Your task to perform on an android device: install app "Mercado Libre" Image 0: 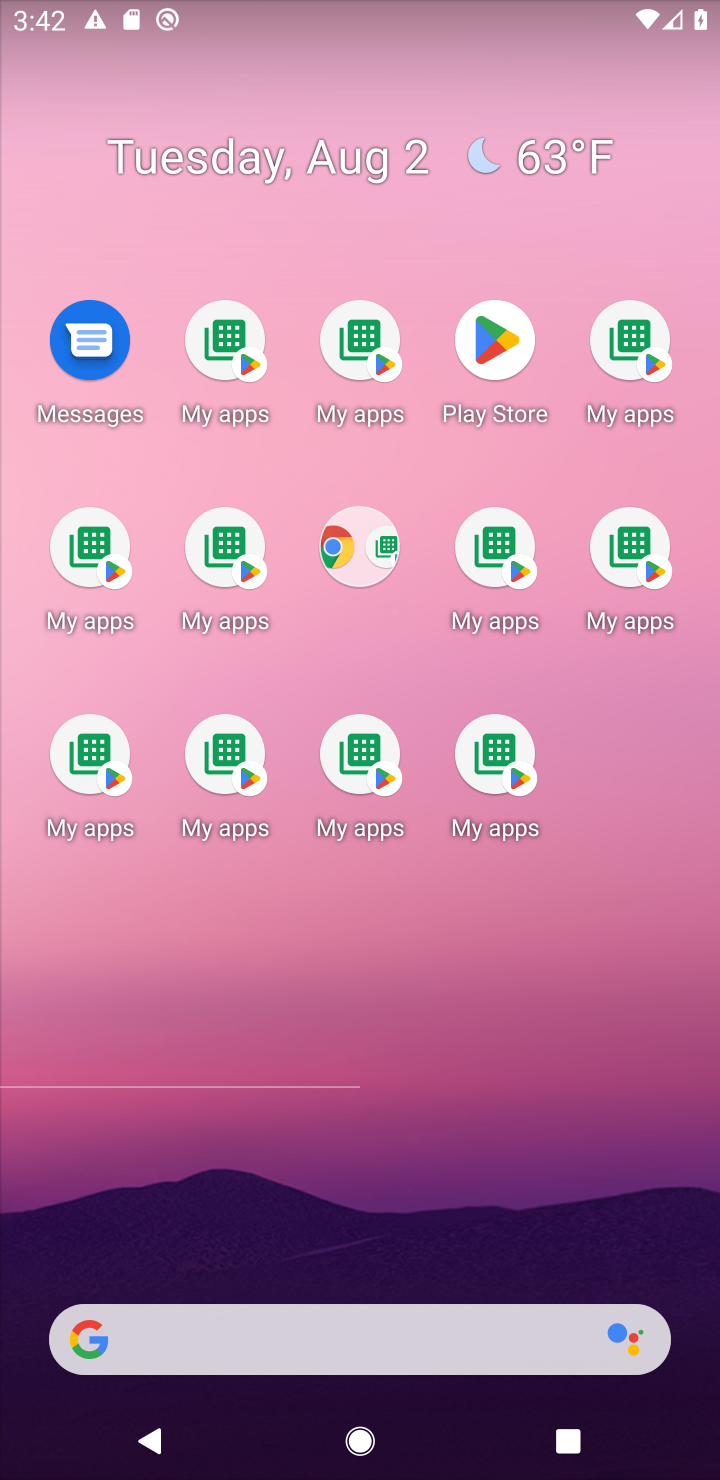
Step 0: press back button
Your task to perform on an android device: install app "Mercado Libre" Image 1: 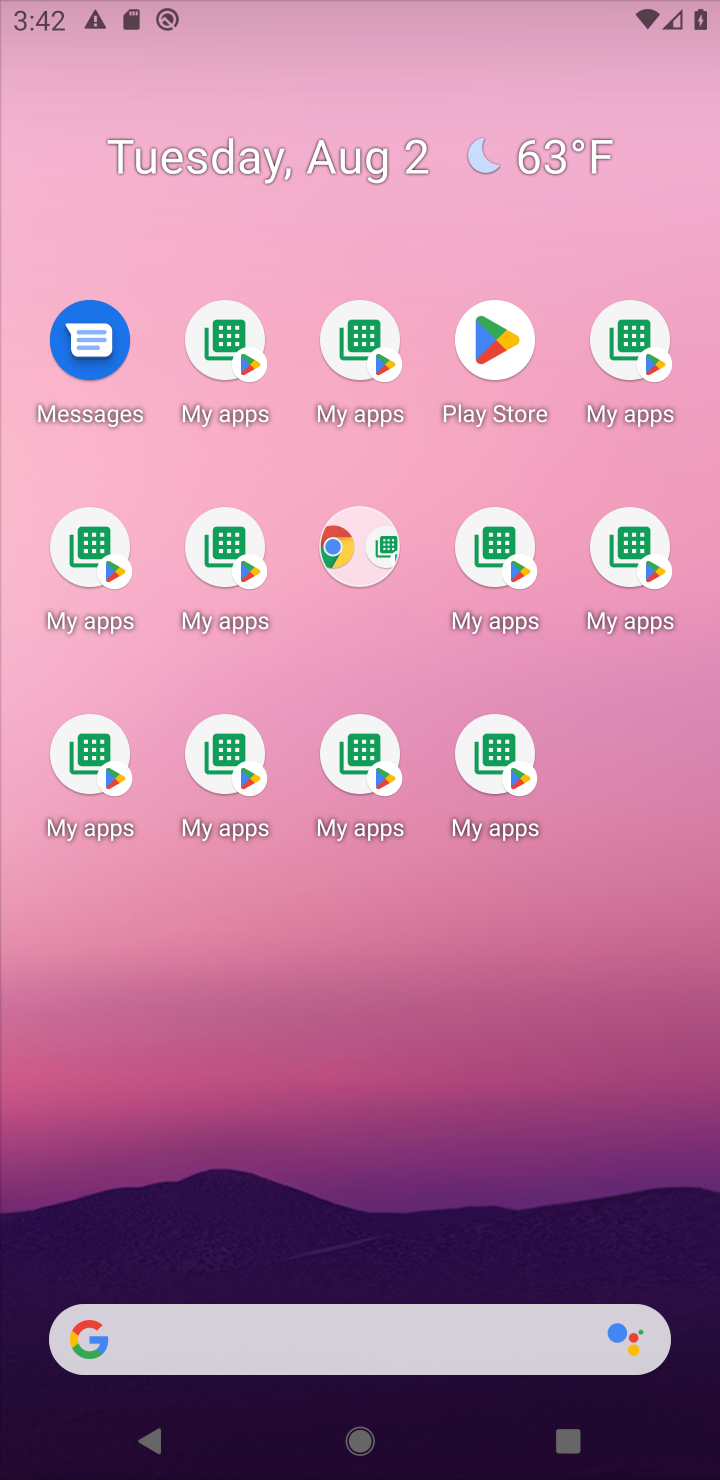
Step 1: click (244, 148)
Your task to perform on an android device: install app "Mercado Libre" Image 2: 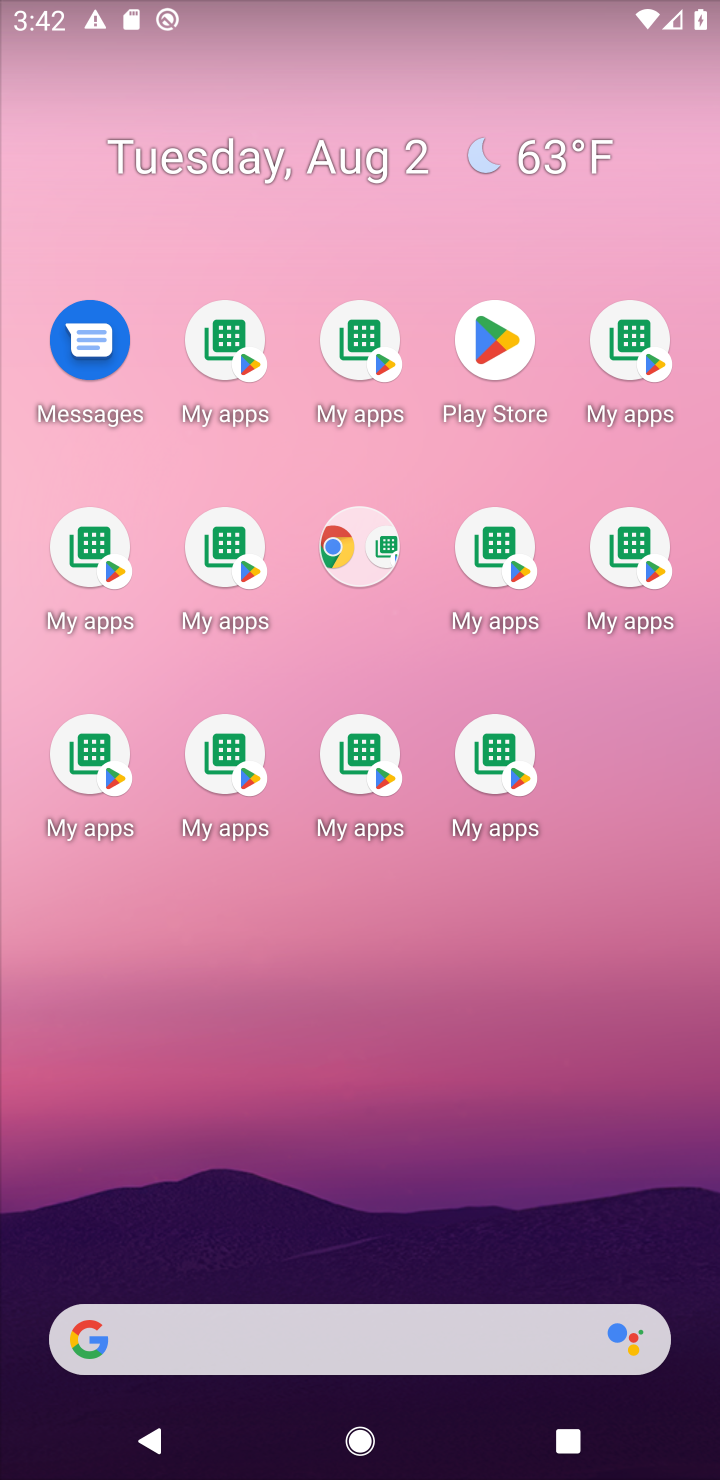
Step 2: click (303, 308)
Your task to perform on an android device: install app "Mercado Libre" Image 3: 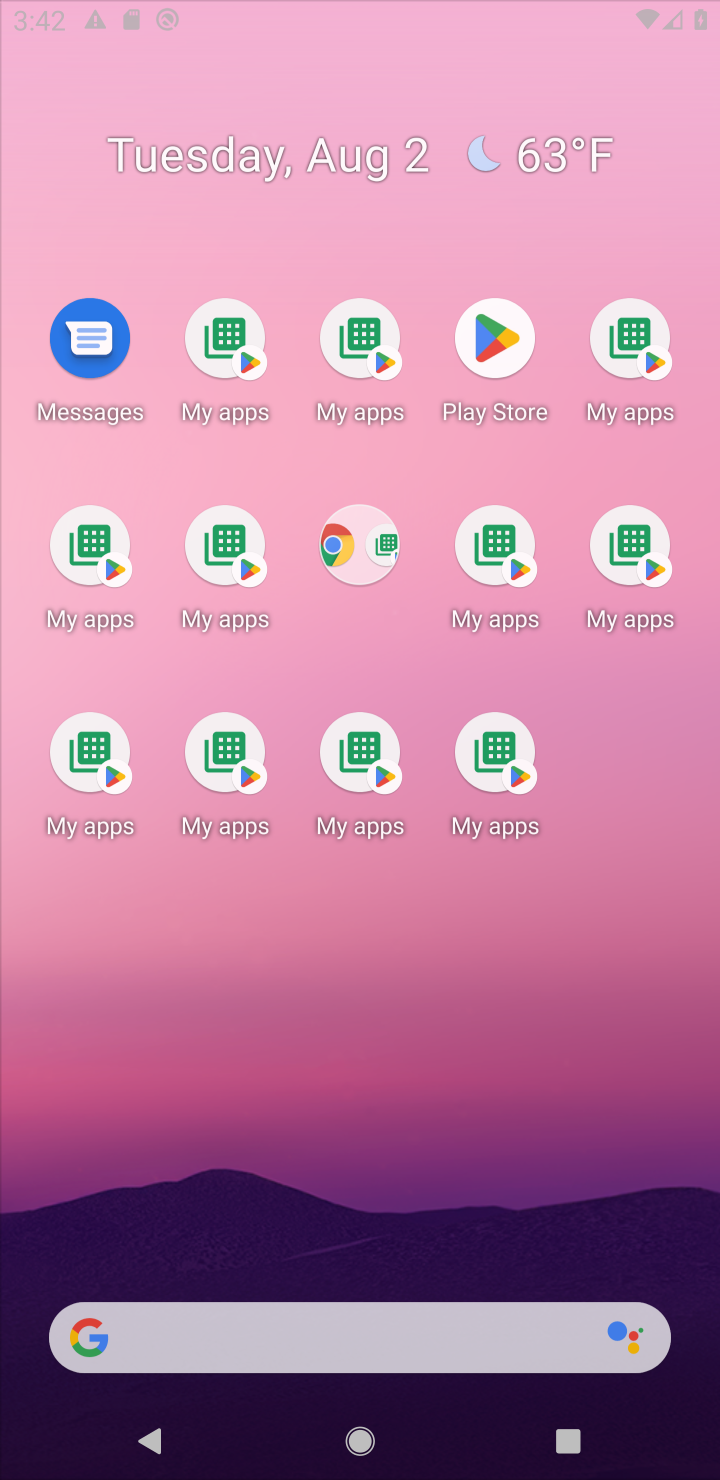
Step 3: click (172, 493)
Your task to perform on an android device: install app "Mercado Libre" Image 4: 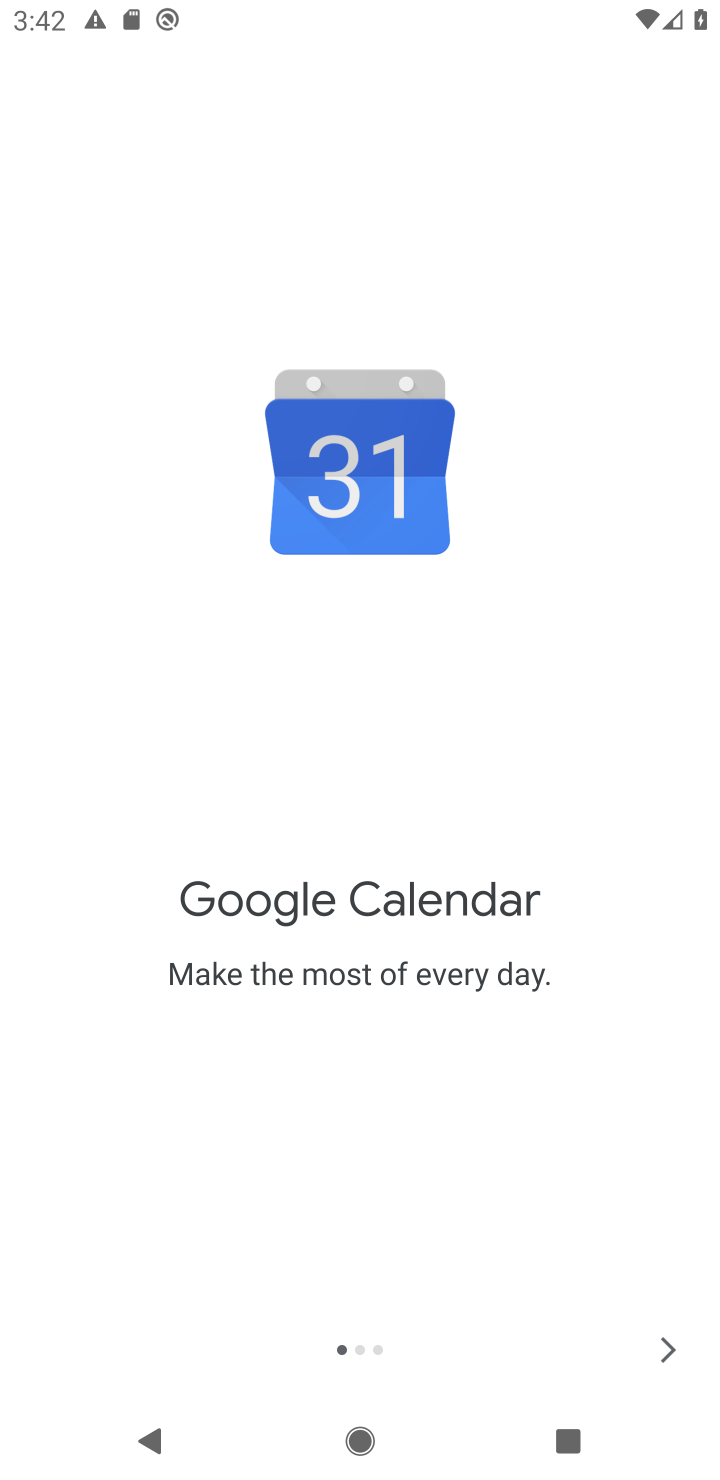
Step 4: drag from (333, 1121) to (329, 283)
Your task to perform on an android device: install app "Mercado Libre" Image 5: 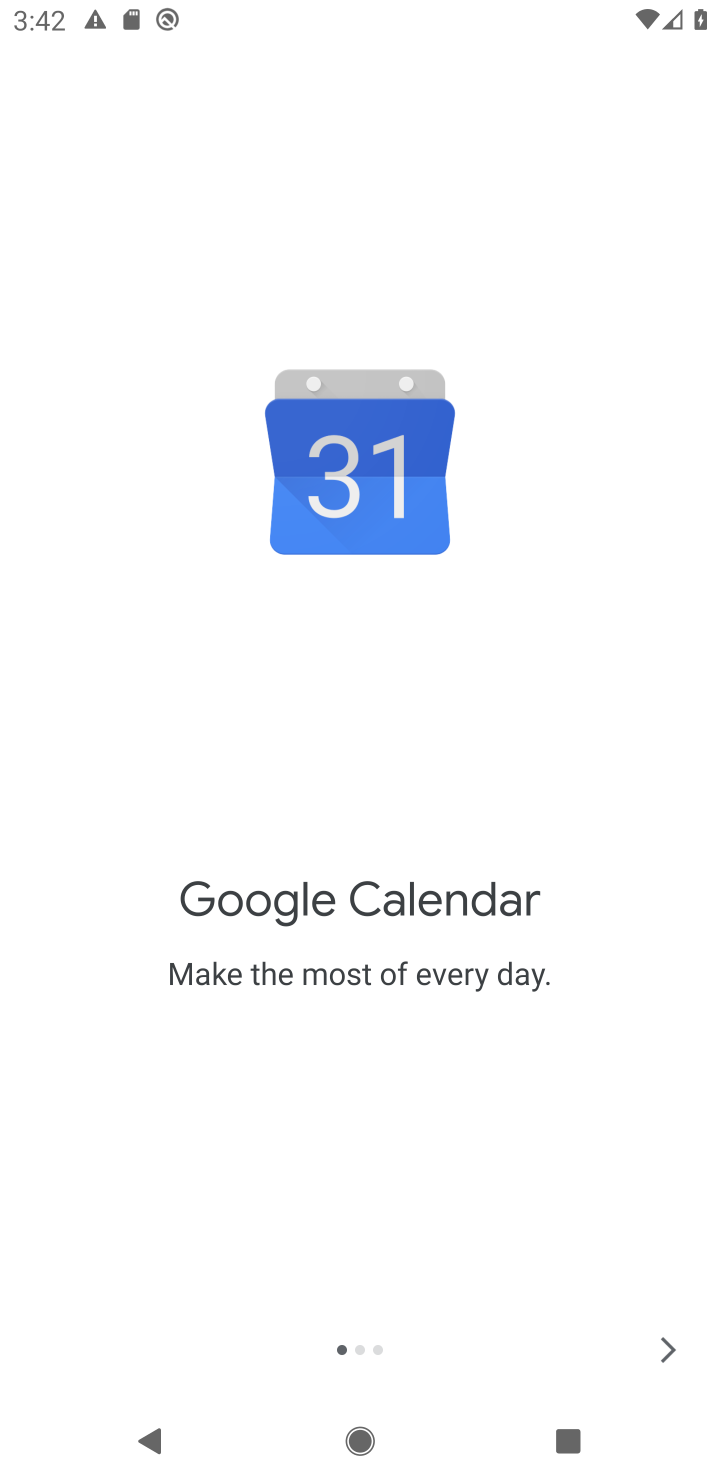
Step 5: press back button
Your task to perform on an android device: install app "Mercado Libre" Image 6: 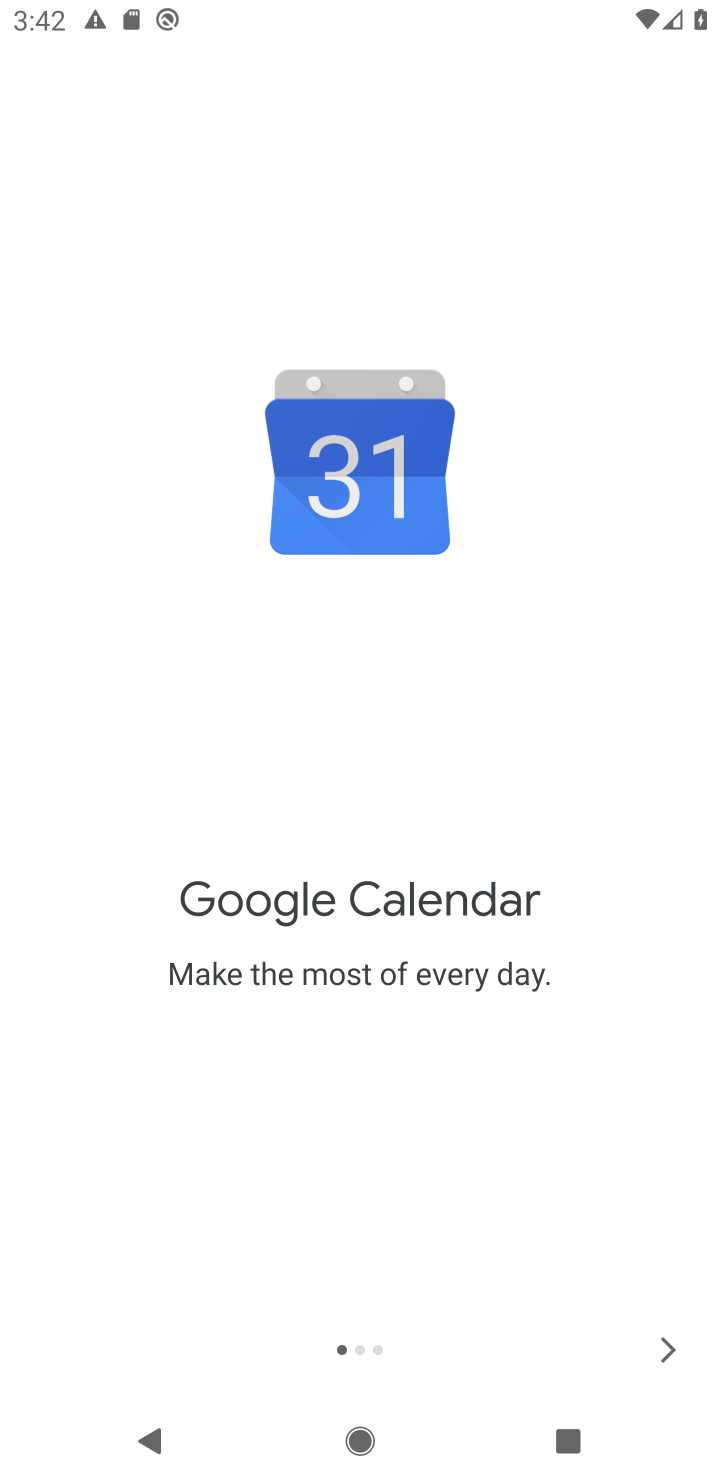
Step 6: press back button
Your task to perform on an android device: install app "Mercado Libre" Image 7: 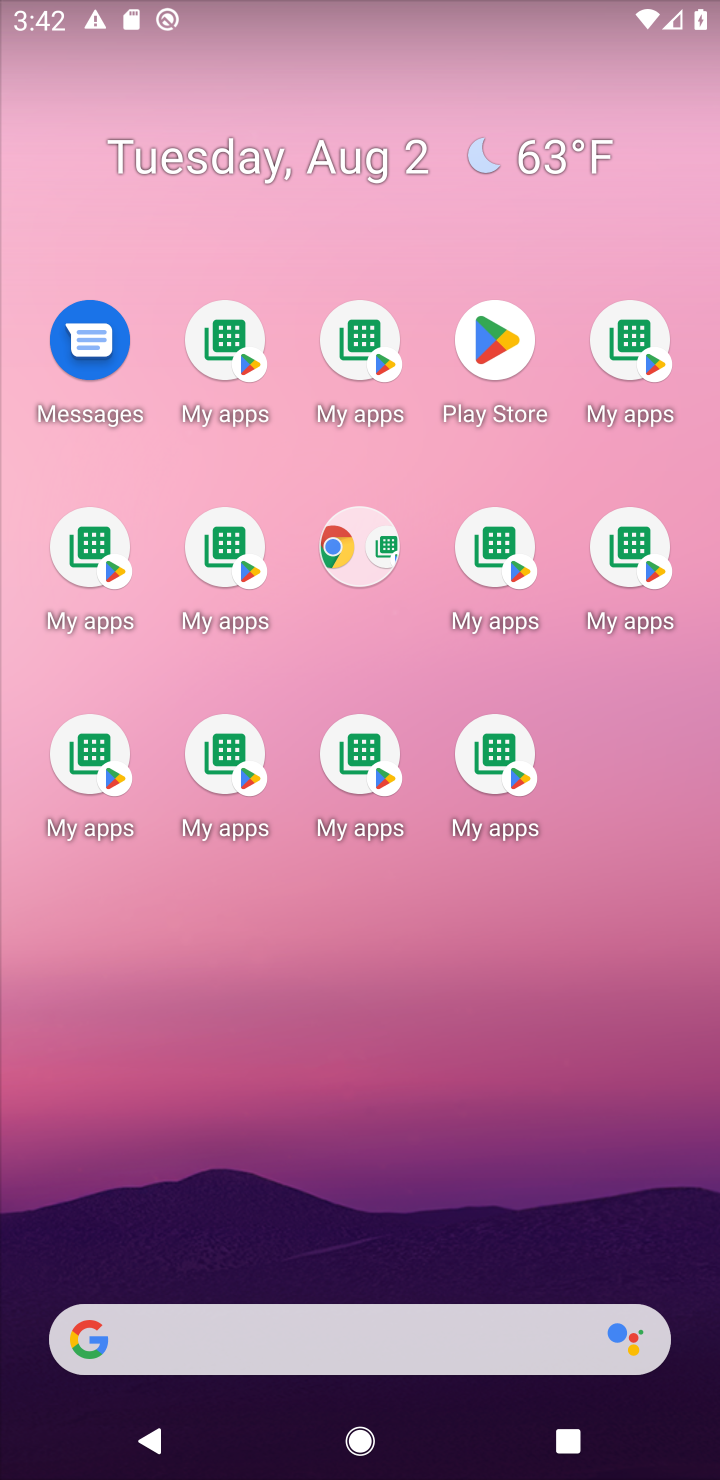
Step 7: drag from (306, 950) to (159, 462)
Your task to perform on an android device: install app "Mercado Libre" Image 8: 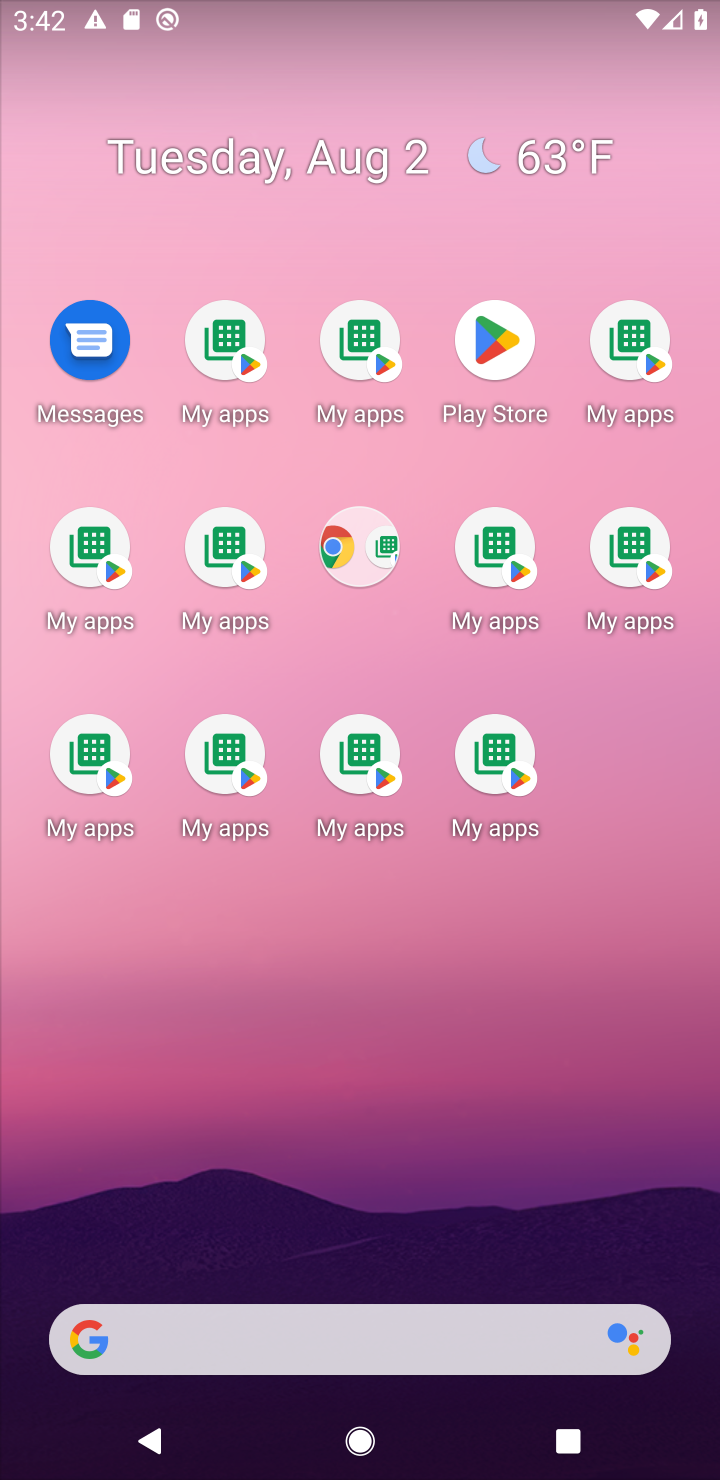
Step 8: drag from (337, 614) to (351, 380)
Your task to perform on an android device: install app "Mercado Libre" Image 9: 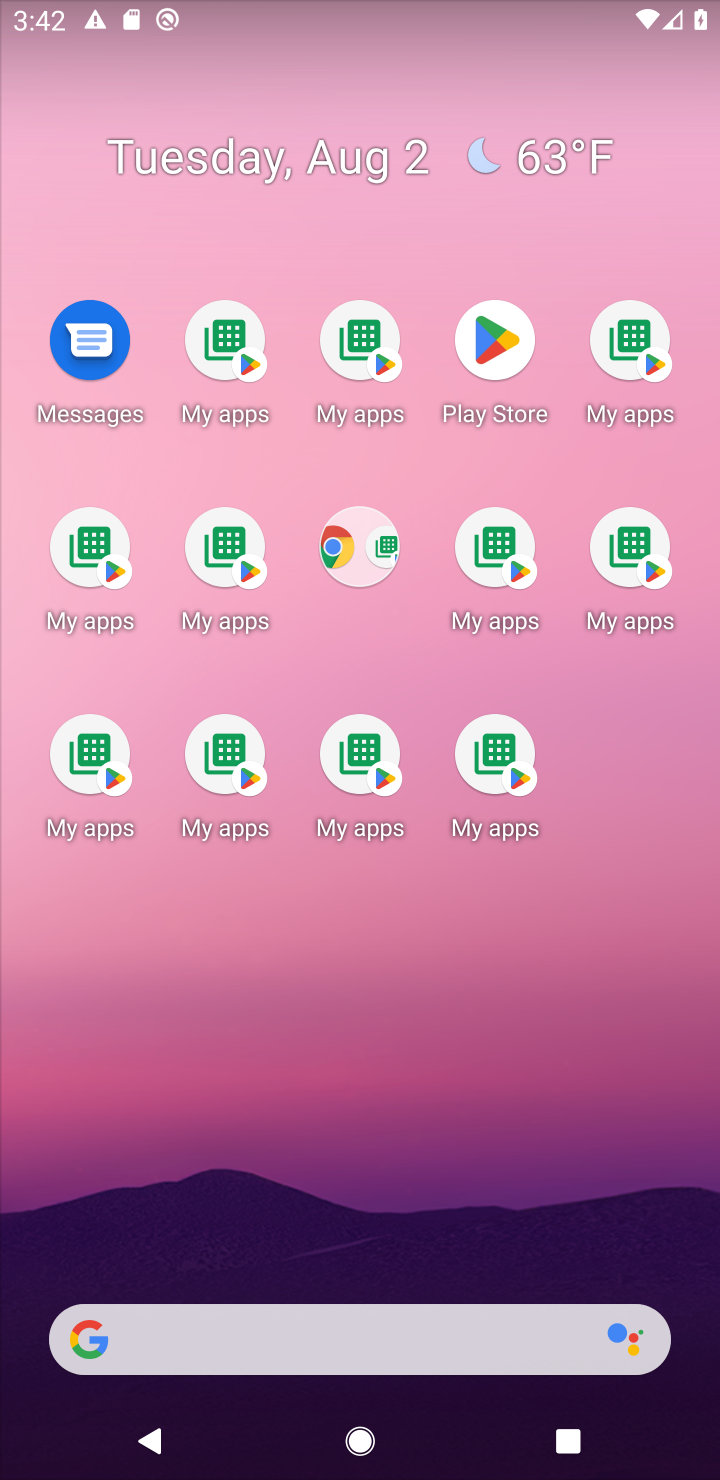
Step 9: click (505, 348)
Your task to perform on an android device: install app "Mercado Libre" Image 10: 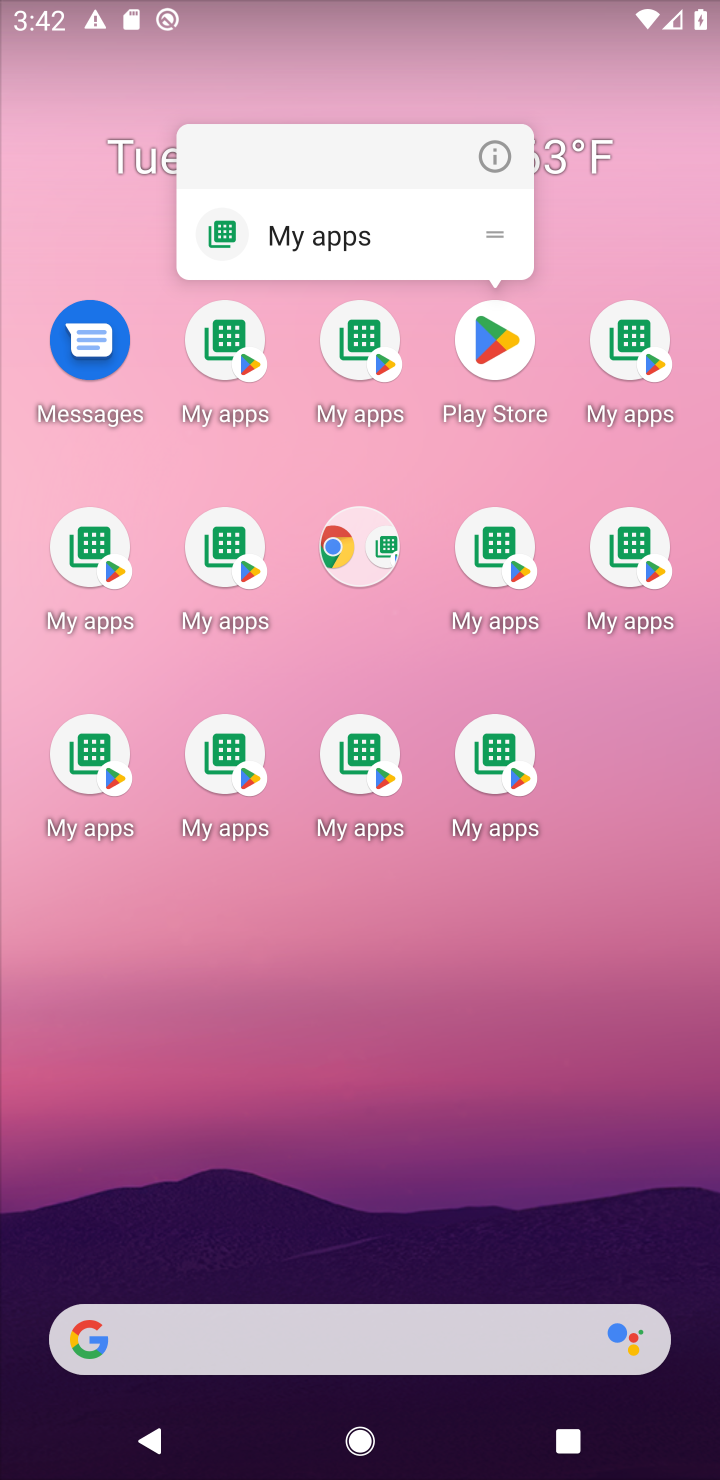
Step 10: click (298, 219)
Your task to perform on an android device: install app "Mercado Libre" Image 11: 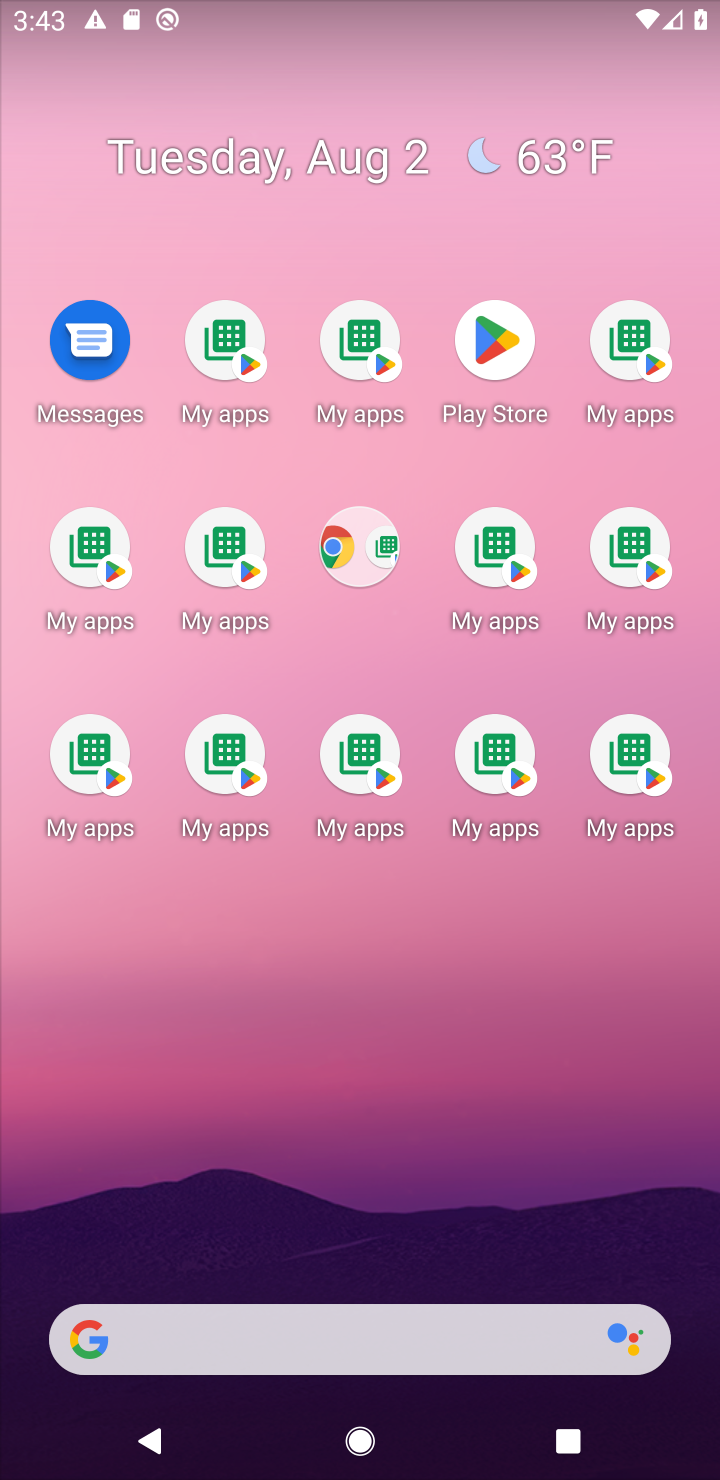
Step 11: click (477, 341)
Your task to perform on an android device: install app "Mercado Libre" Image 12: 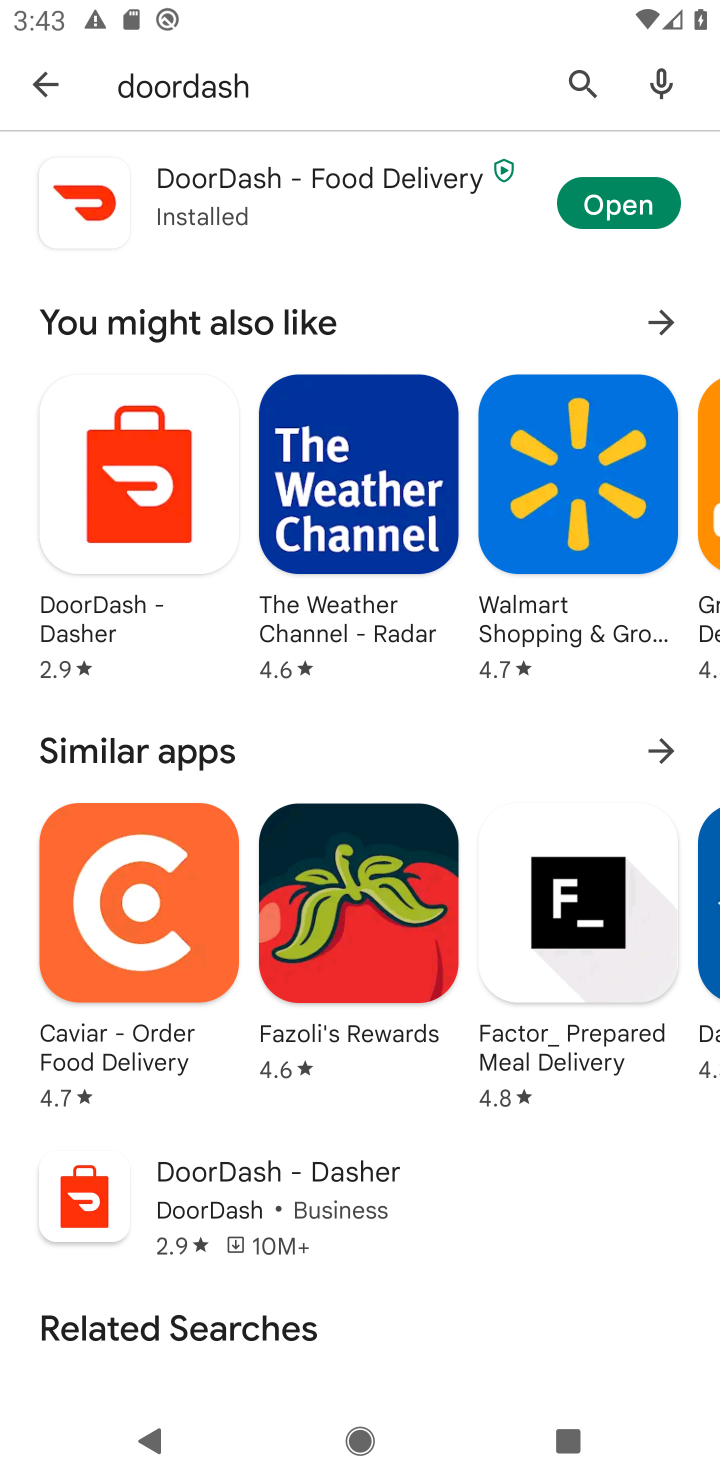
Step 12: click (578, 75)
Your task to perform on an android device: install app "Mercado Libre" Image 13: 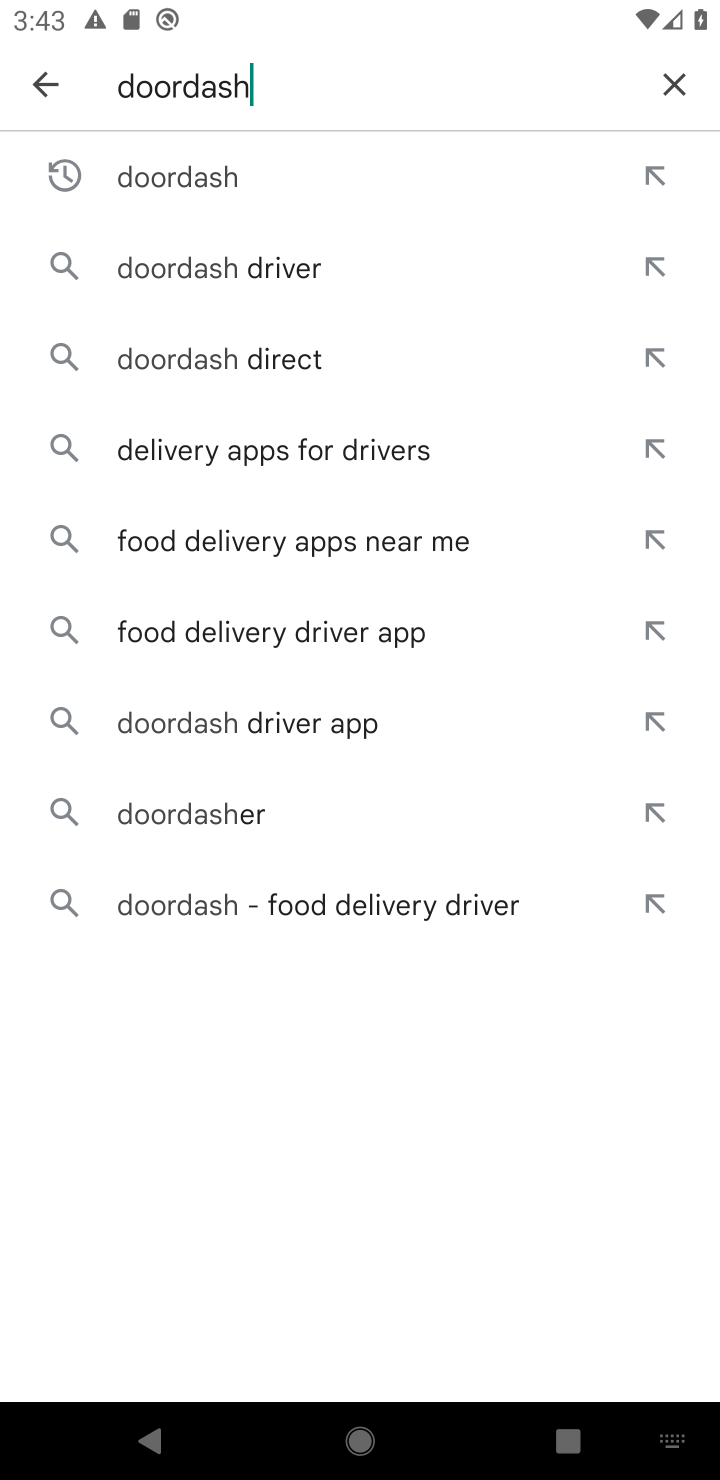
Step 13: click (679, 24)
Your task to perform on an android device: install app "Mercado Libre" Image 14: 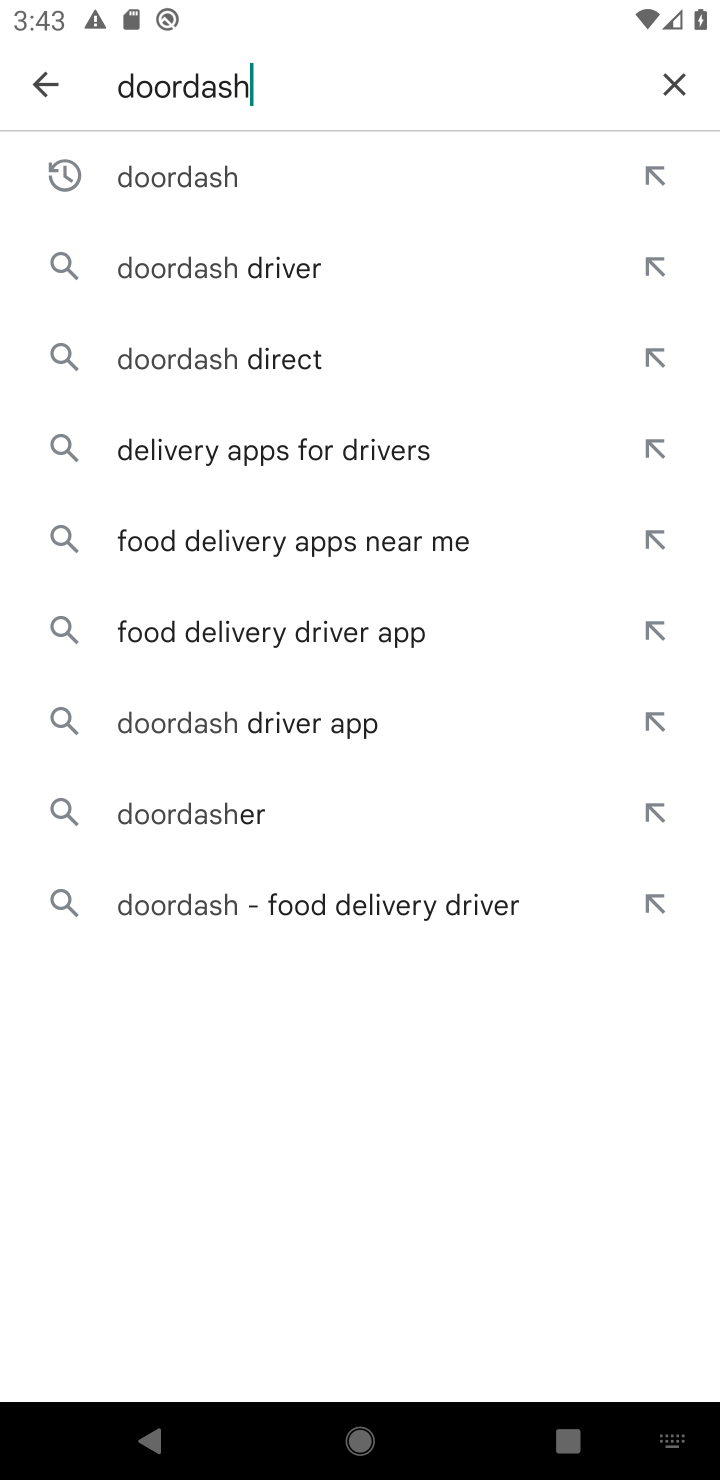
Step 14: click (665, 75)
Your task to perform on an android device: install app "Mercado Libre" Image 15: 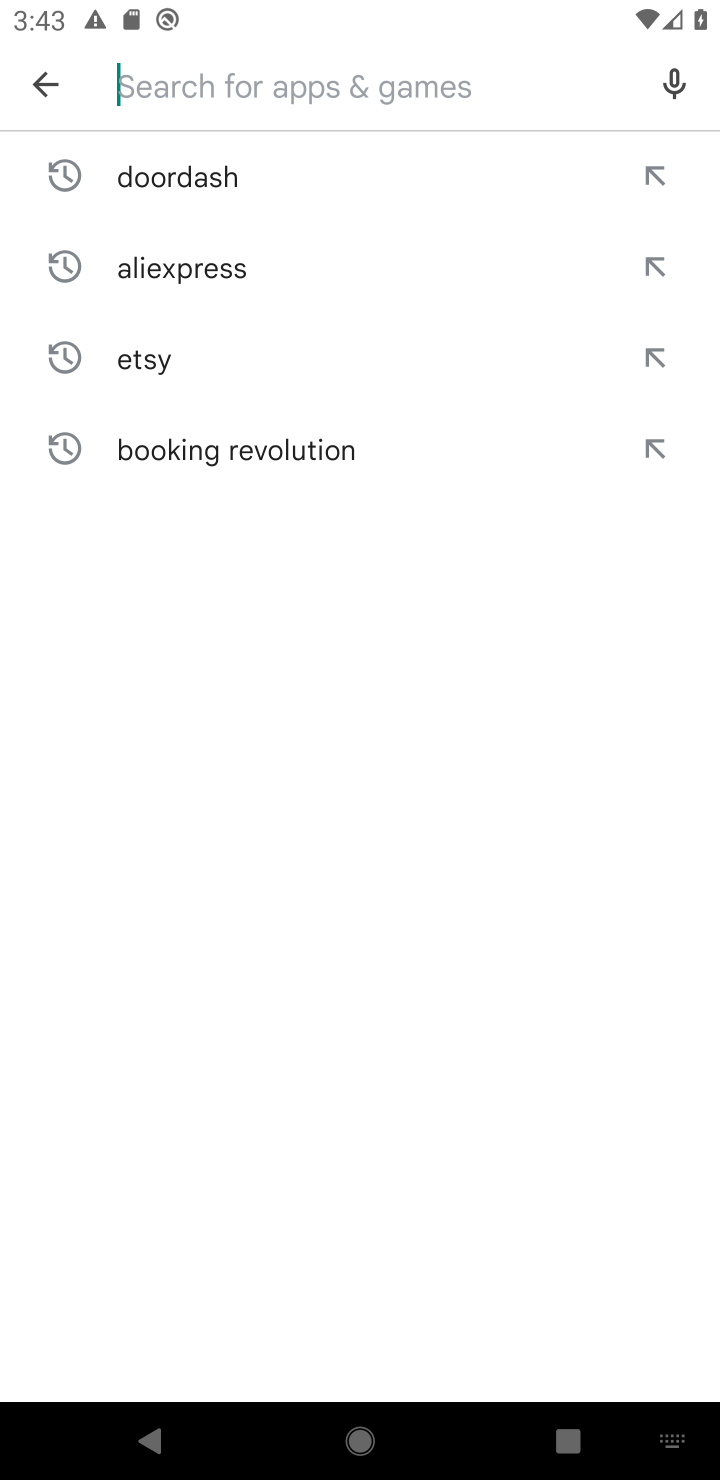
Step 15: type "mercado"
Your task to perform on an android device: install app "Mercado Libre" Image 16: 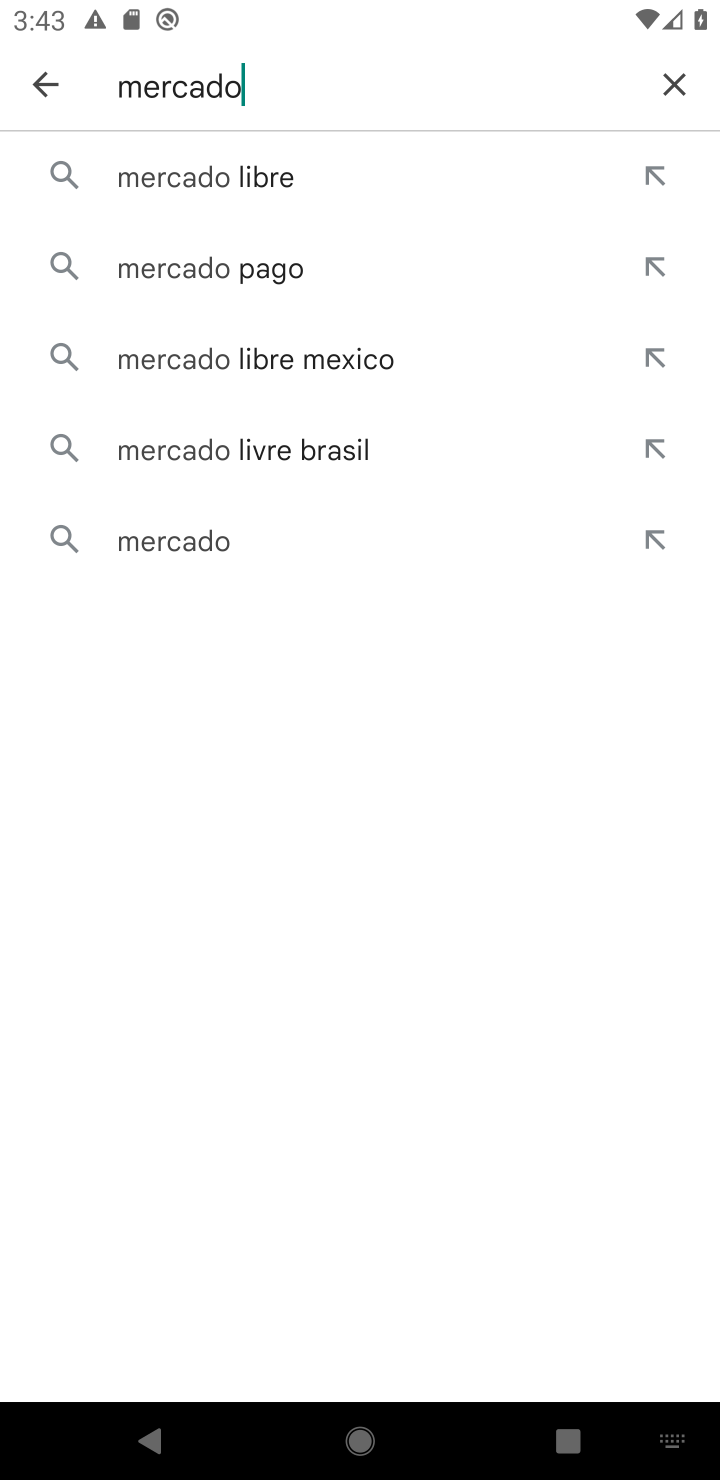
Step 16: click (214, 187)
Your task to perform on an android device: install app "Mercado Libre" Image 17: 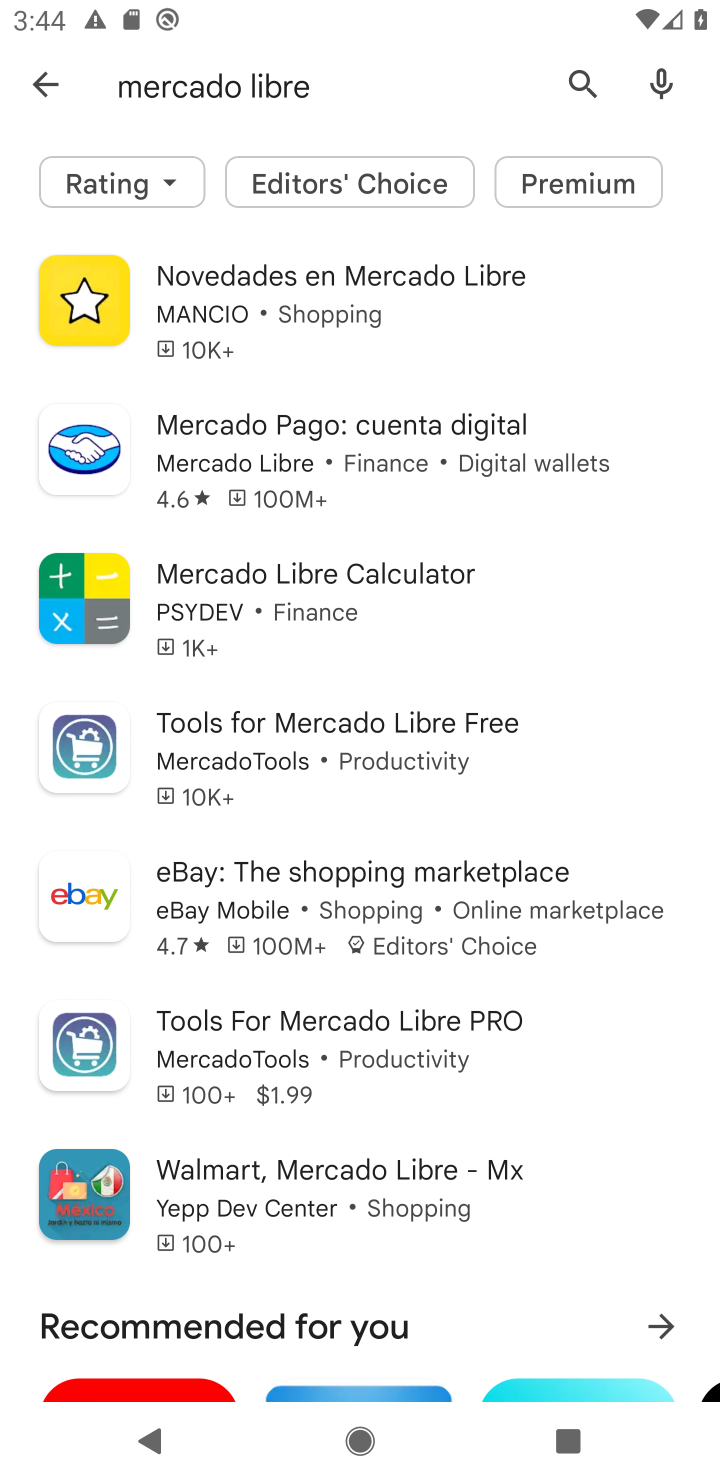
Step 17: task complete